Your task to perform on an android device: Open Google Chrome and click the shortcut for Amazon.com Image 0: 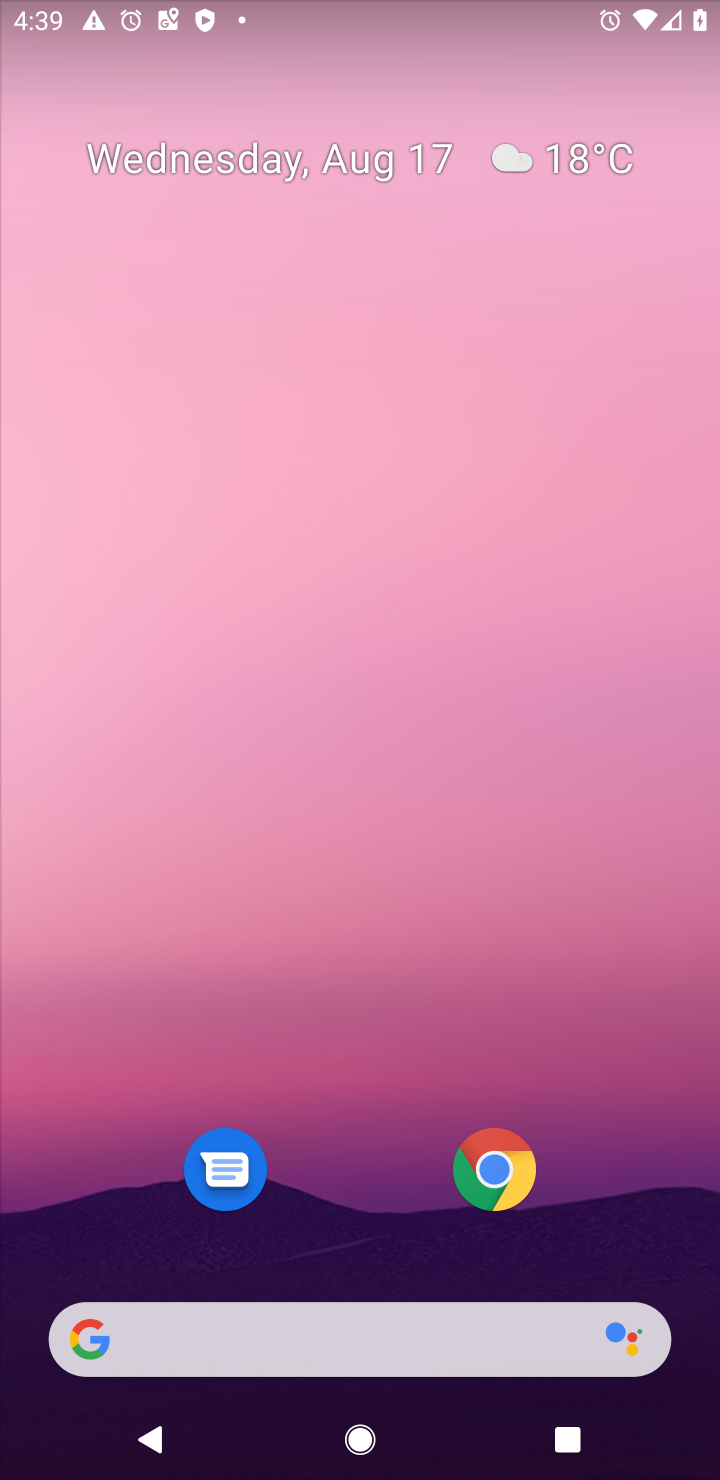
Step 0: drag from (380, 935) to (402, 151)
Your task to perform on an android device: Open Google Chrome and click the shortcut for Amazon.com Image 1: 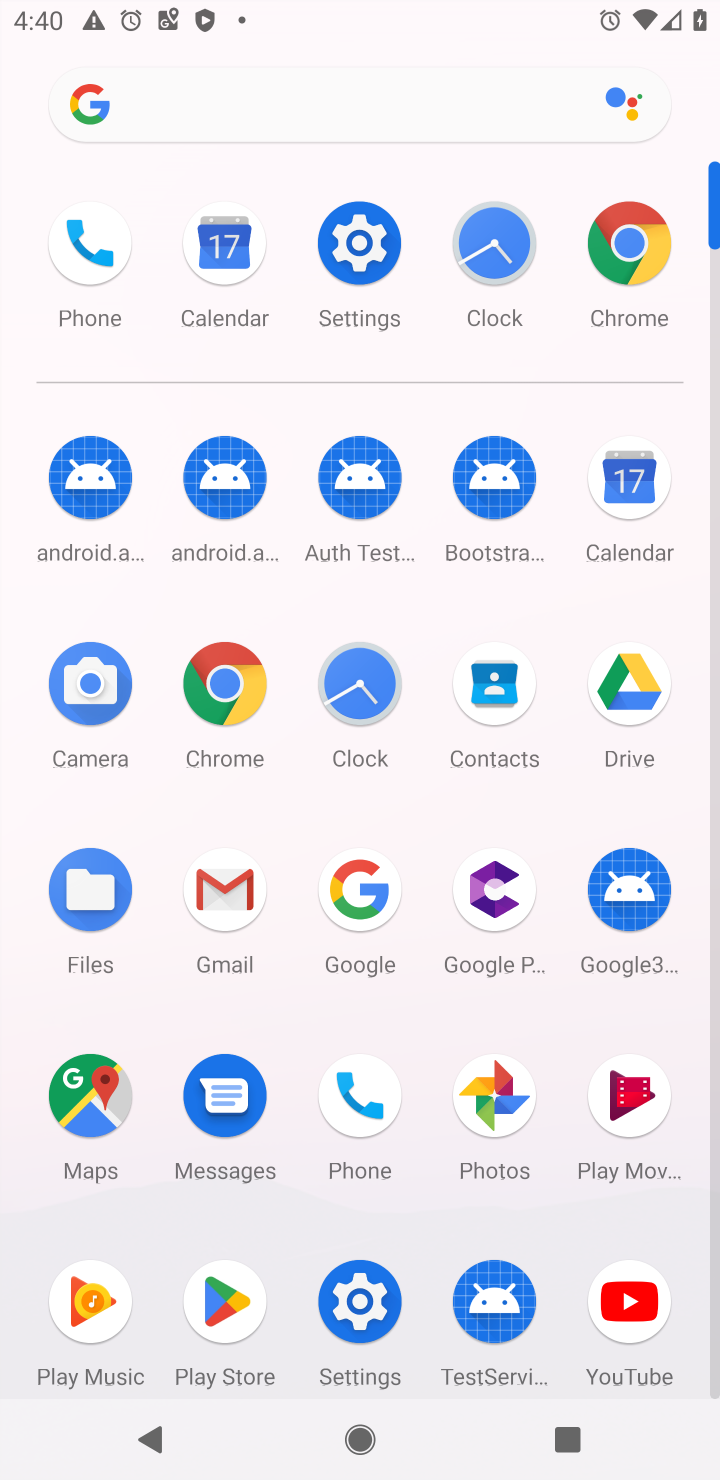
Step 1: click (219, 676)
Your task to perform on an android device: Open Google Chrome and click the shortcut for Amazon.com Image 2: 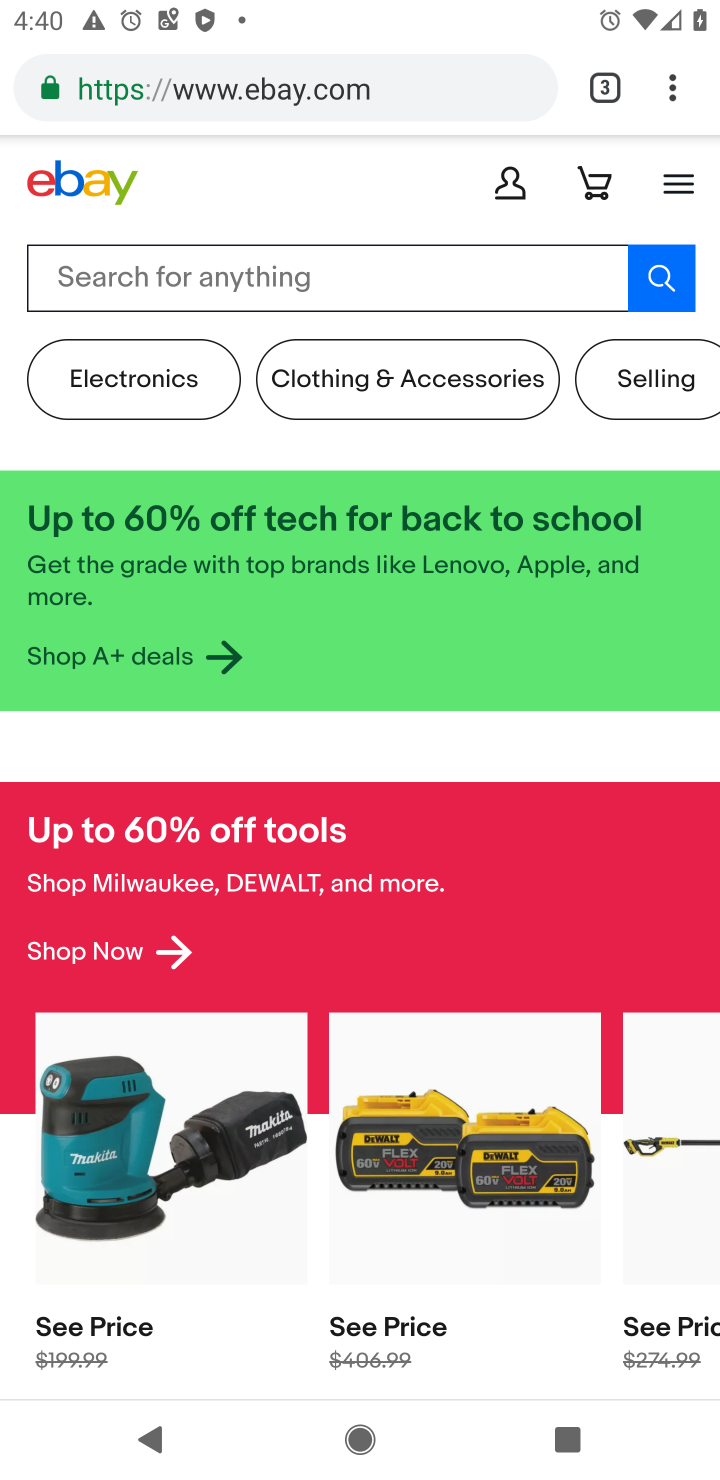
Step 2: drag from (677, 94) to (398, 294)
Your task to perform on an android device: Open Google Chrome and click the shortcut for Amazon.com Image 3: 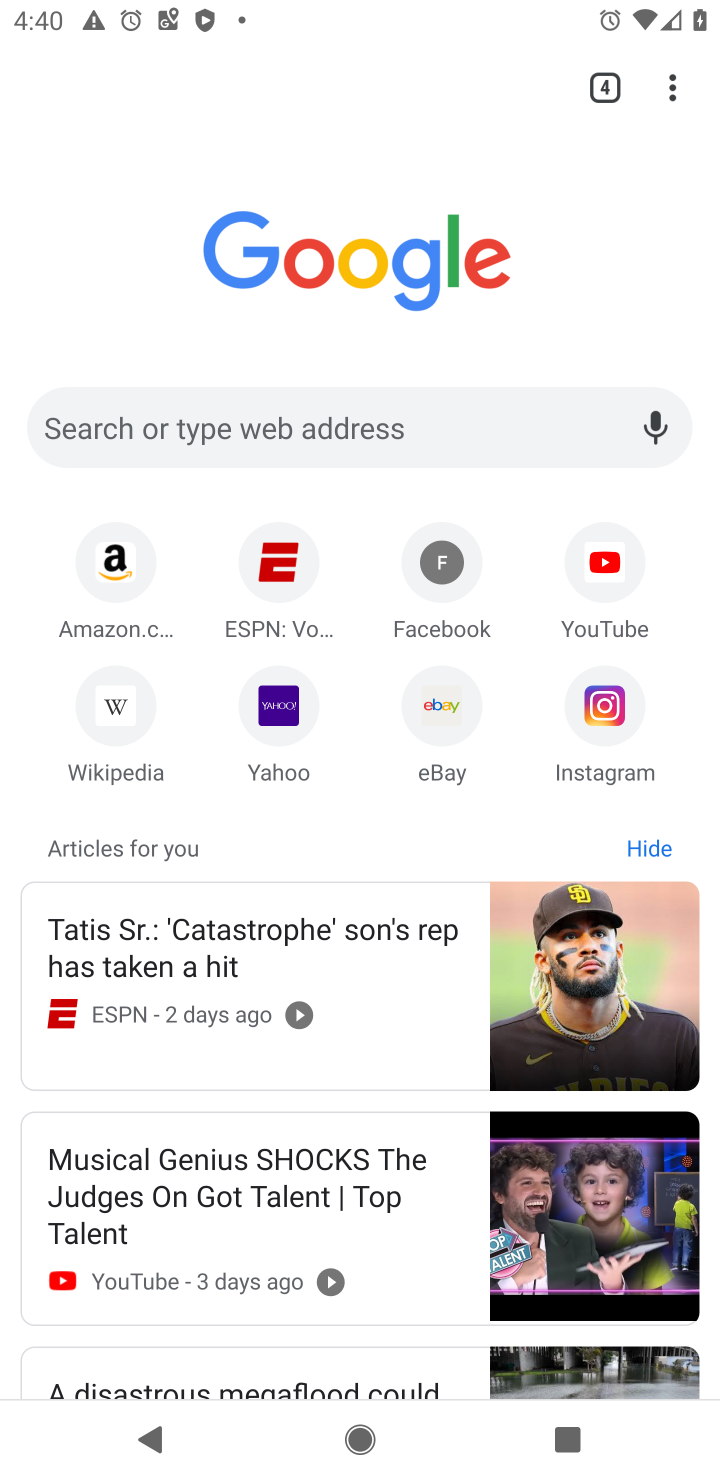
Step 3: click (103, 549)
Your task to perform on an android device: Open Google Chrome and click the shortcut for Amazon.com Image 4: 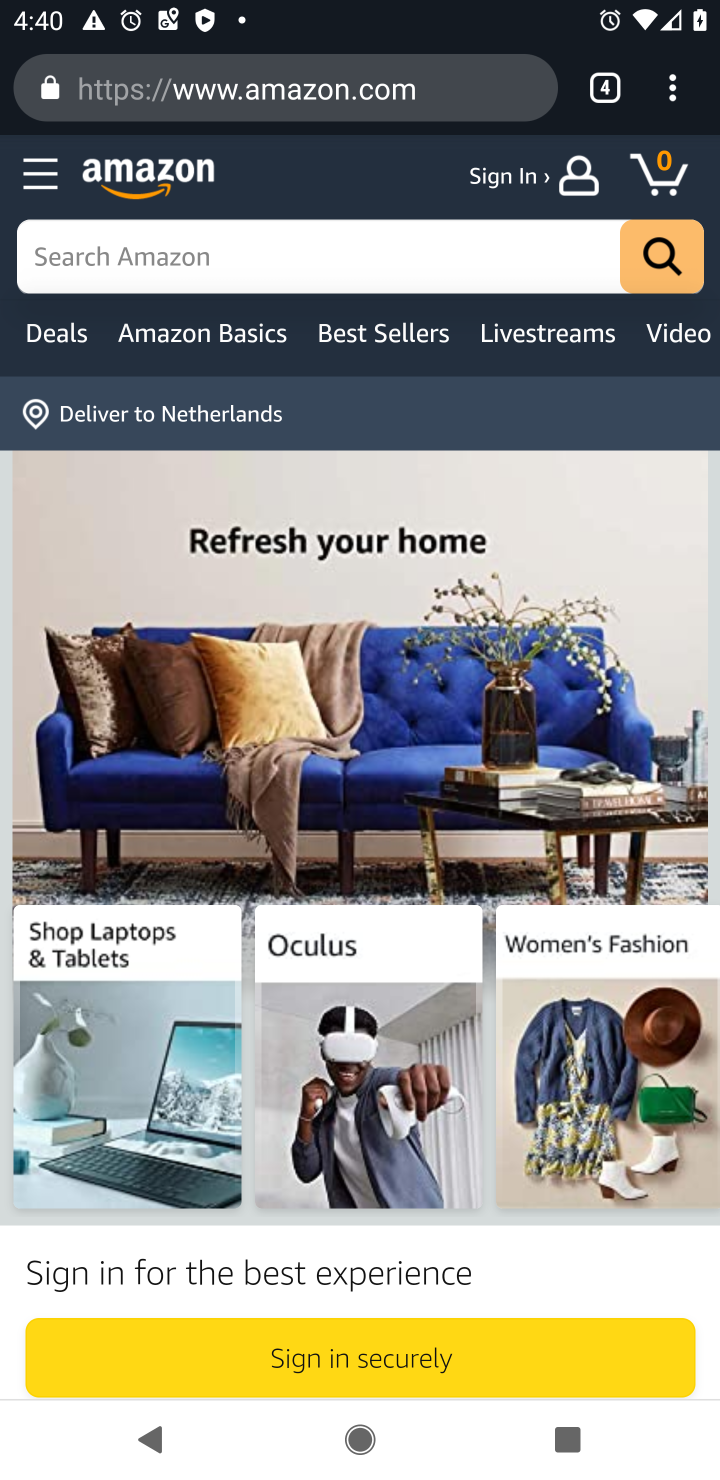
Step 4: task complete